Your task to perform on an android device: open app "Airtel Thanks" Image 0: 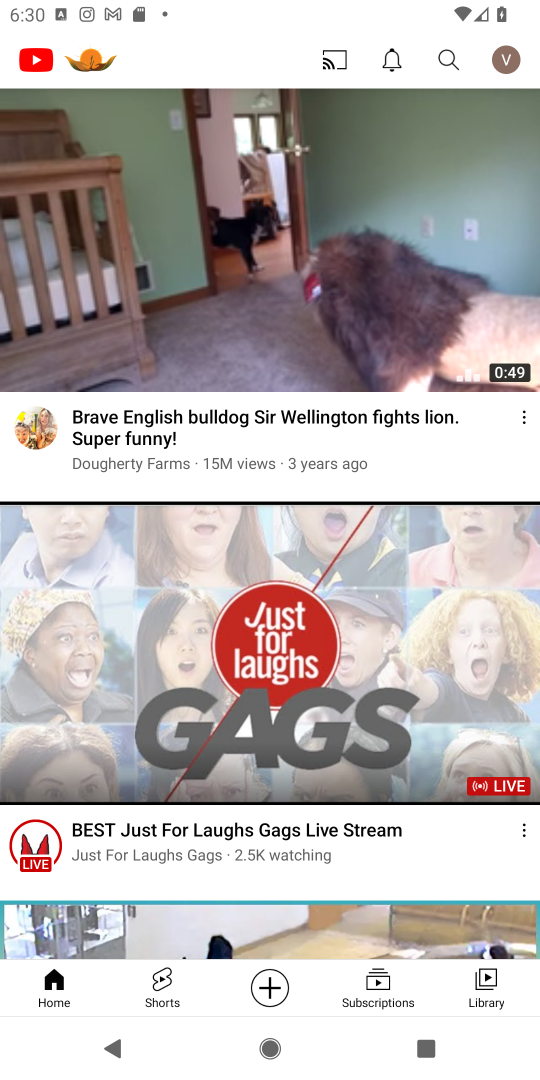
Step 0: press home button
Your task to perform on an android device: open app "Airtel Thanks" Image 1: 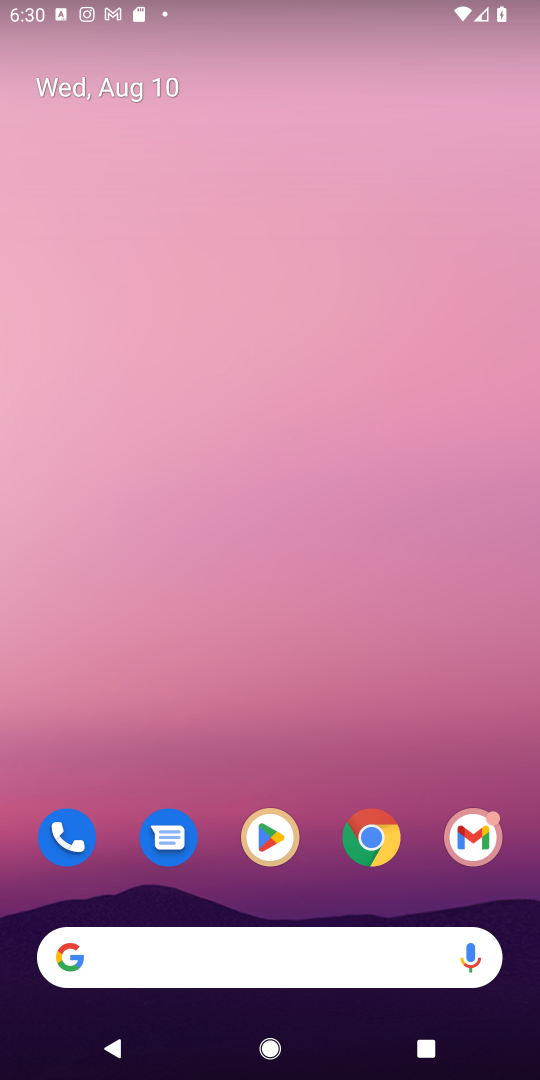
Step 1: click (274, 843)
Your task to perform on an android device: open app "Airtel Thanks" Image 2: 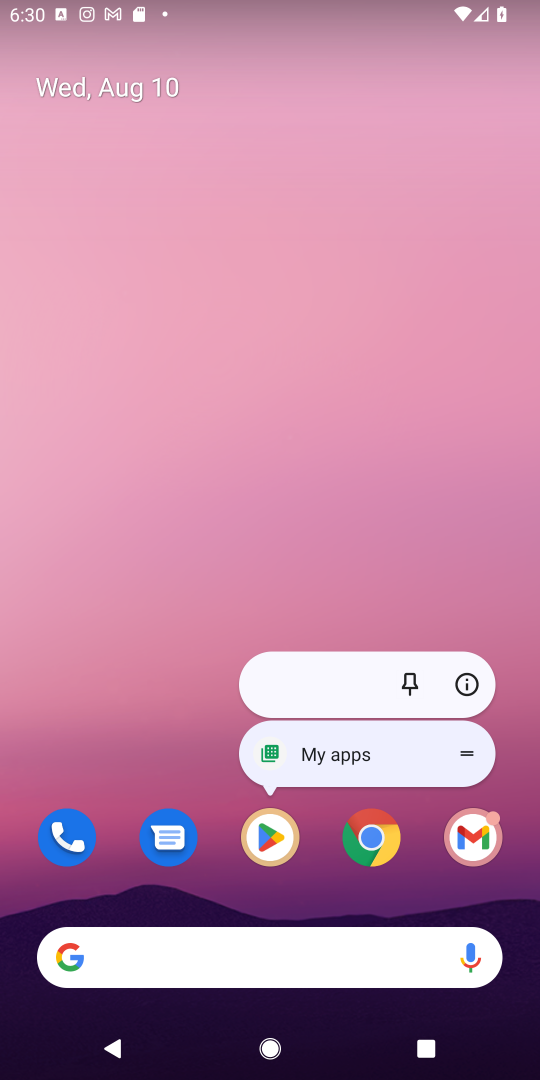
Step 2: click (259, 833)
Your task to perform on an android device: open app "Airtel Thanks" Image 3: 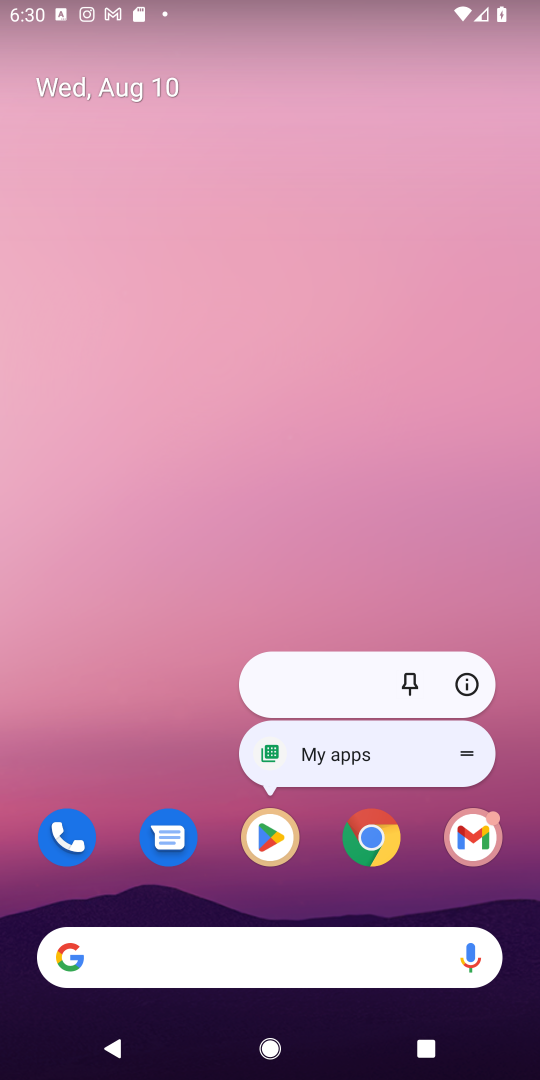
Step 3: click (259, 834)
Your task to perform on an android device: open app "Airtel Thanks" Image 4: 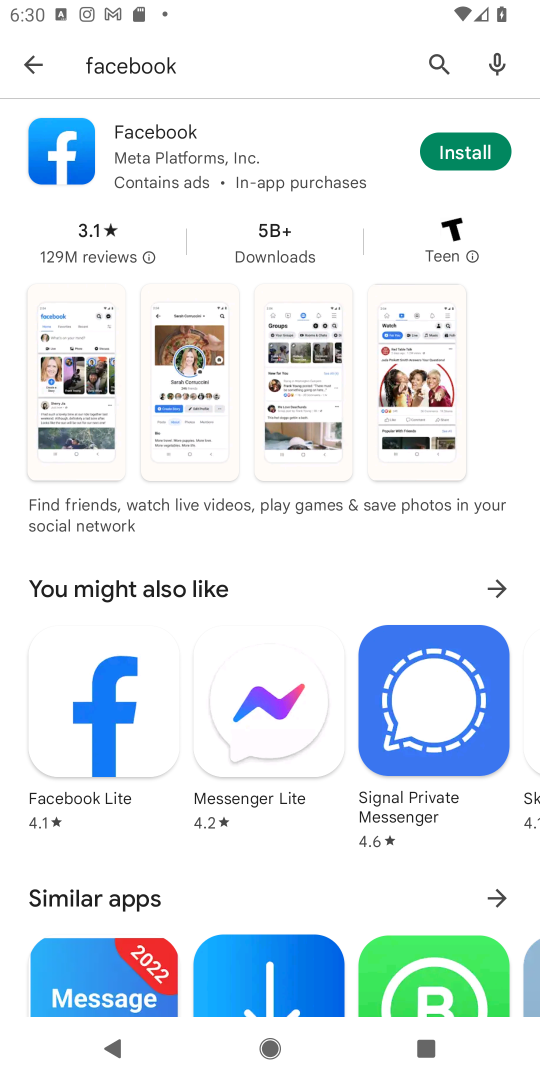
Step 4: click (437, 59)
Your task to perform on an android device: open app "Airtel Thanks" Image 5: 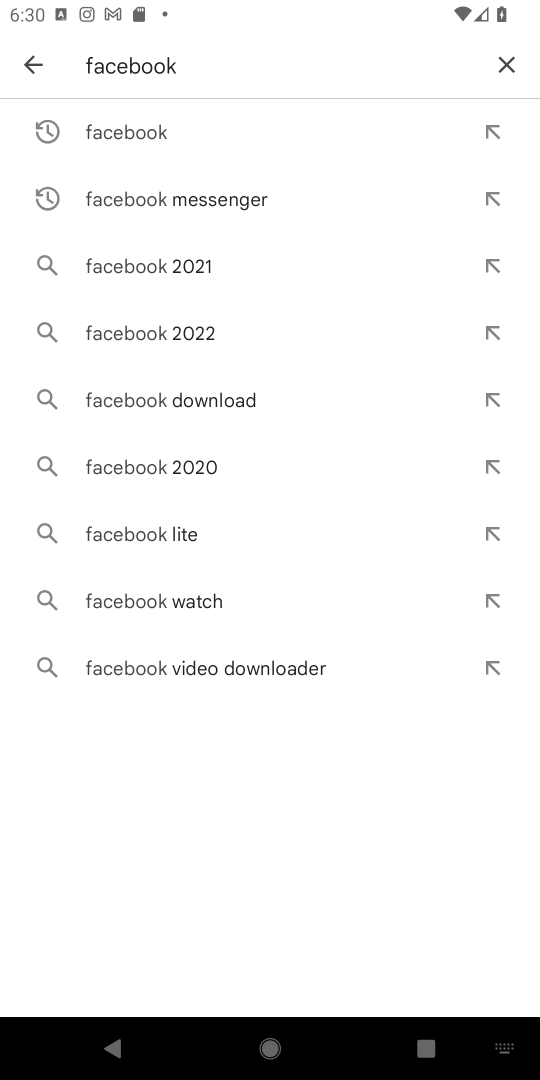
Step 5: click (505, 61)
Your task to perform on an android device: open app "Airtel Thanks" Image 6: 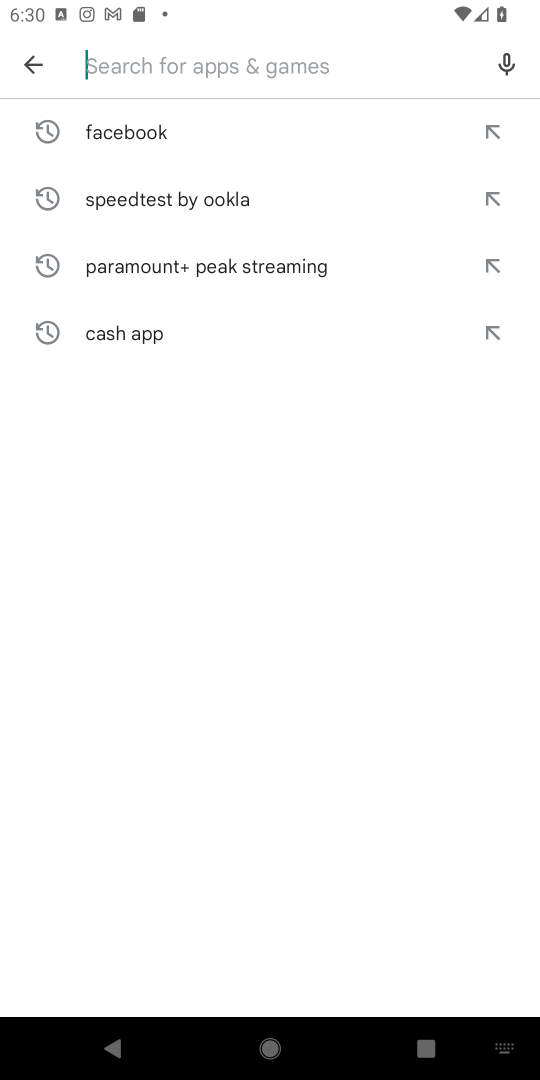
Step 6: type "Airtel Thanks"
Your task to perform on an android device: open app "Airtel Thanks" Image 7: 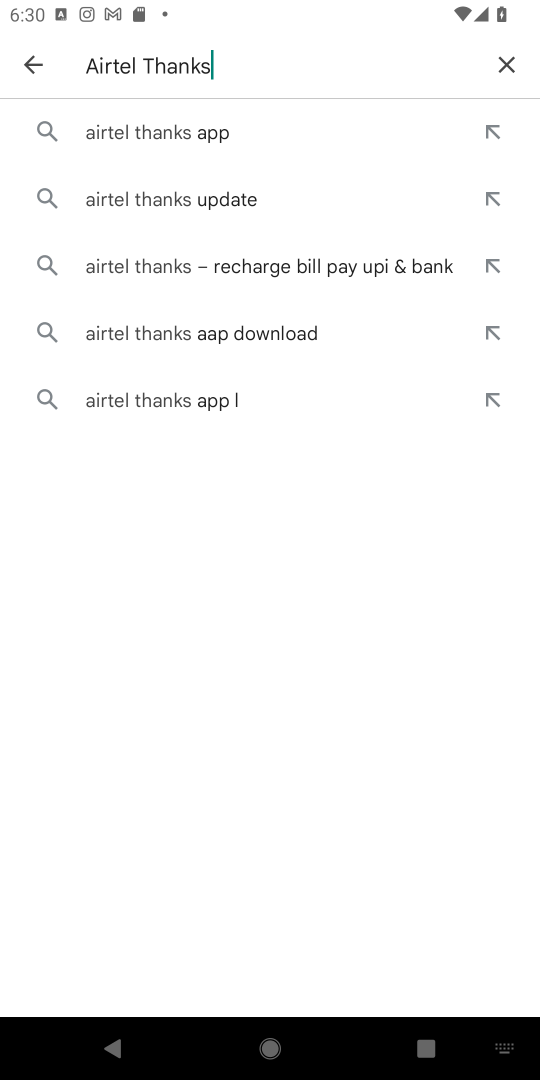
Step 7: click (201, 133)
Your task to perform on an android device: open app "Airtel Thanks" Image 8: 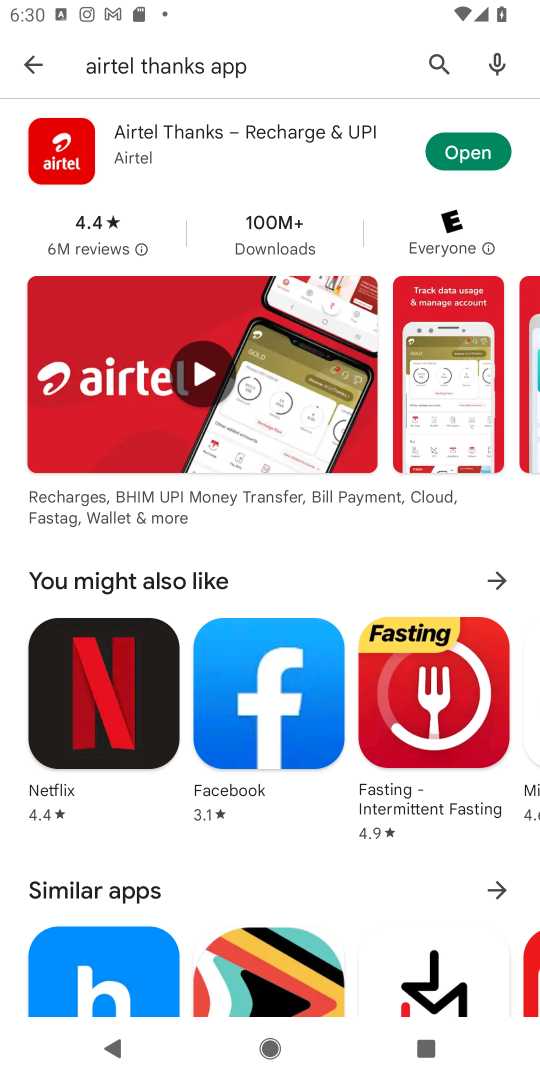
Step 8: click (456, 154)
Your task to perform on an android device: open app "Airtel Thanks" Image 9: 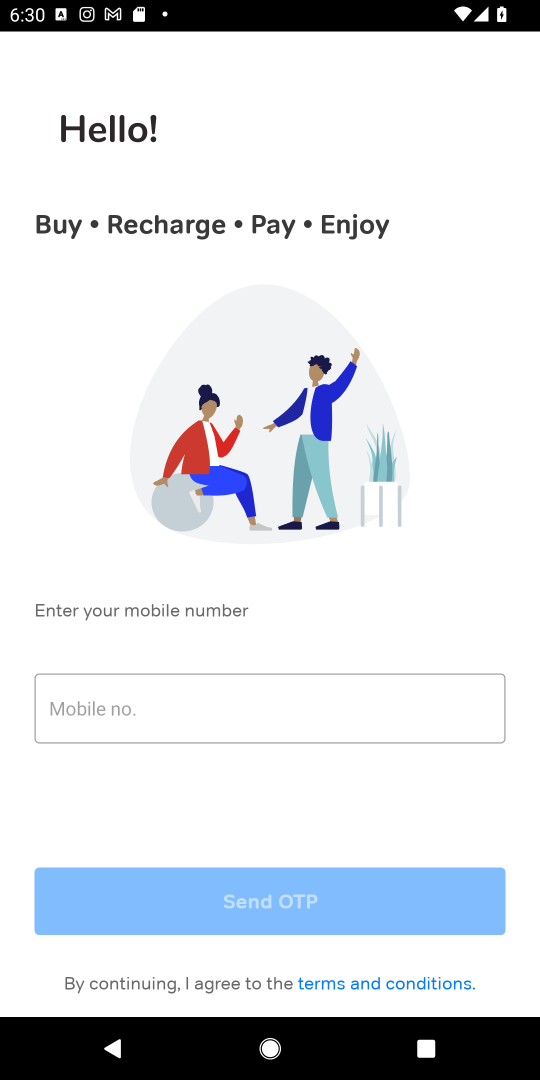
Step 9: task complete